Your task to perform on an android device: open a bookmark in the chrome app Image 0: 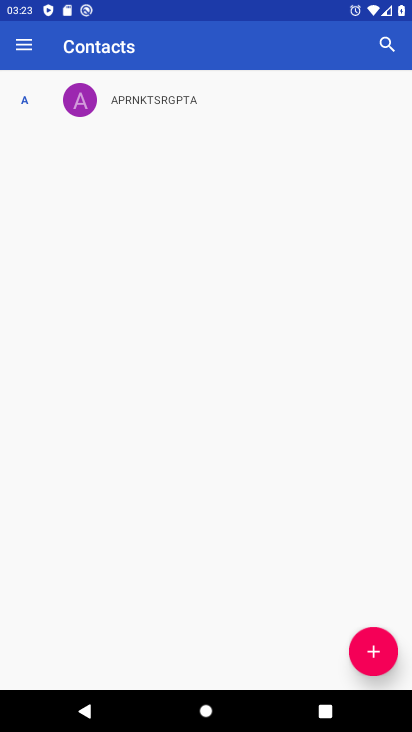
Step 0: drag from (155, 631) to (118, 234)
Your task to perform on an android device: open a bookmark in the chrome app Image 1: 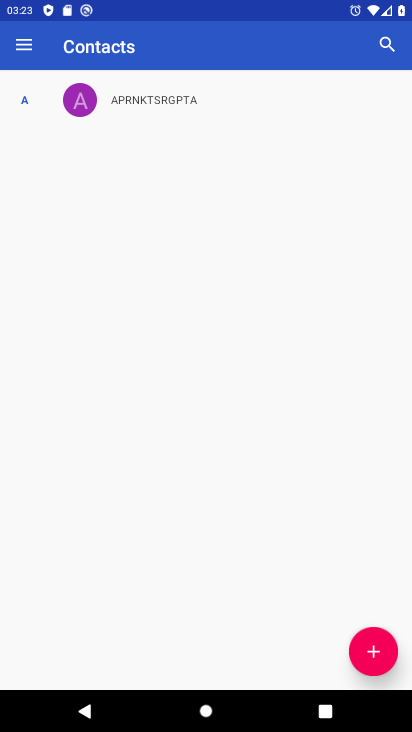
Step 1: press home button
Your task to perform on an android device: open a bookmark in the chrome app Image 2: 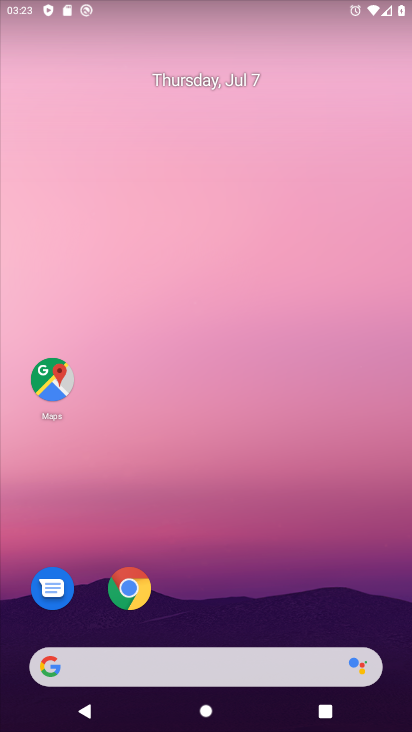
Step 2: click (129, 584)
Your task to perform on an android device: open a bookmark in the chrome app Image 3: 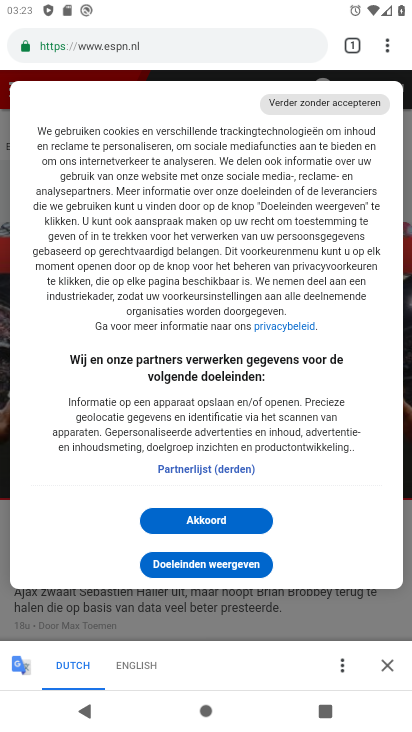
Step 3: click (393, 42)
Your task to perform on an android device: open a bookmark in the chrome app Image 4: 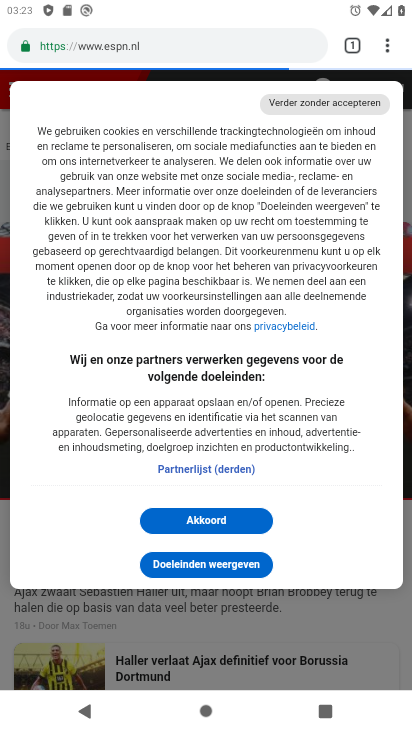
Step 4: click (375, 37)
Your task to perform on an android device: open a bookmark in the chrome app Image 5: 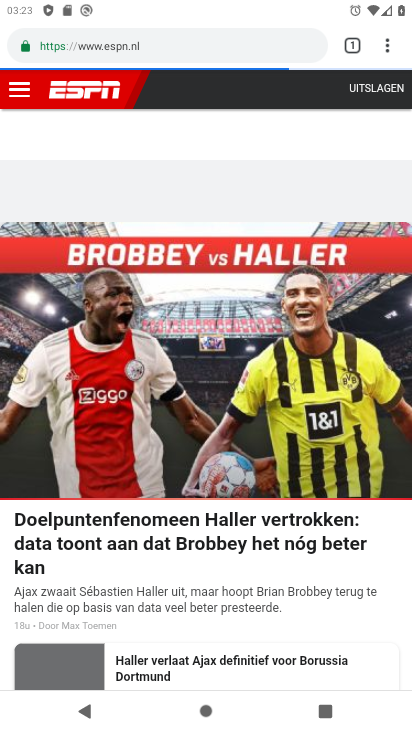
Step 5: click (386, 46)
Your task to perform on an android device: open a bookmark in the chrome app Image 6: 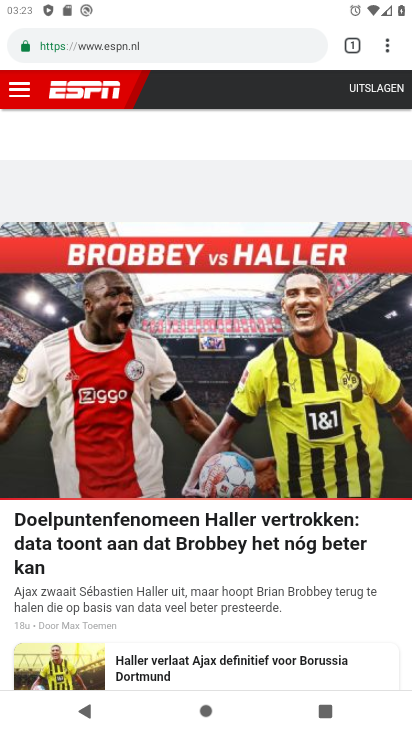
Step 6: click (386, 46)
Your task to perform on an android device: open a bookmark in the chrome app Image 7: 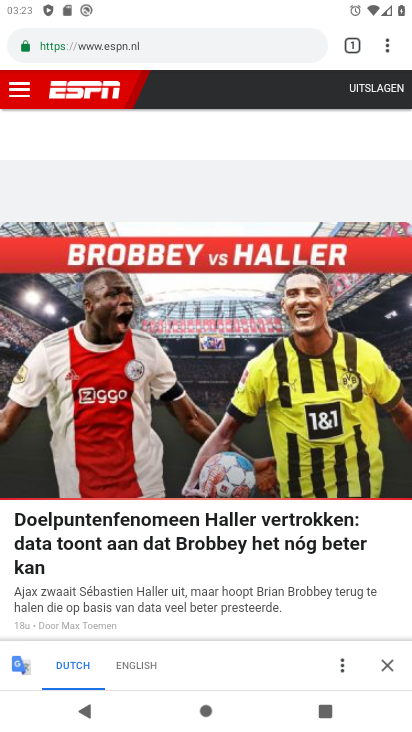
Step 7: click (385, 45)
Your task to perform on an android device: open a bookmark in the chrome app Image 8: 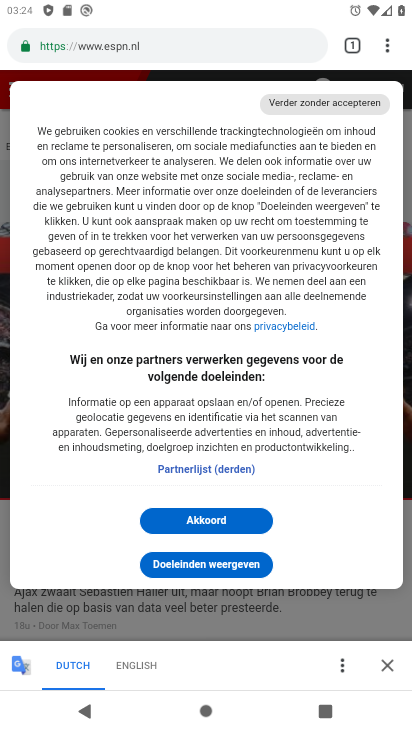
Step 8: click (387, 47)
Your task to perform on an android device: open a bookmark in the chrome app Image 9: 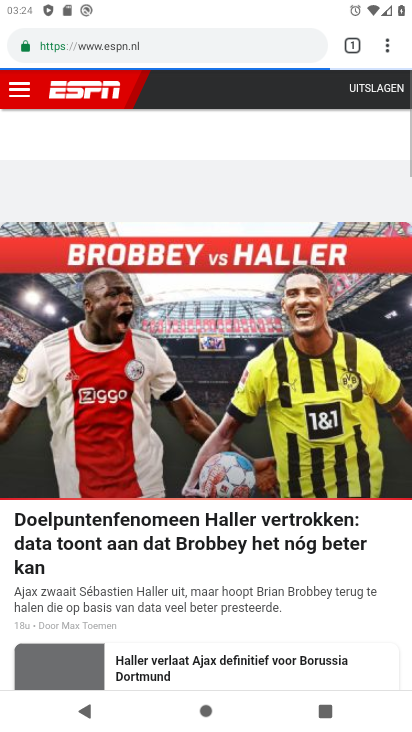
Step 9: click (384, 45)
Your task to perform on an android device: open a bookmark in the chrome app Image 10: 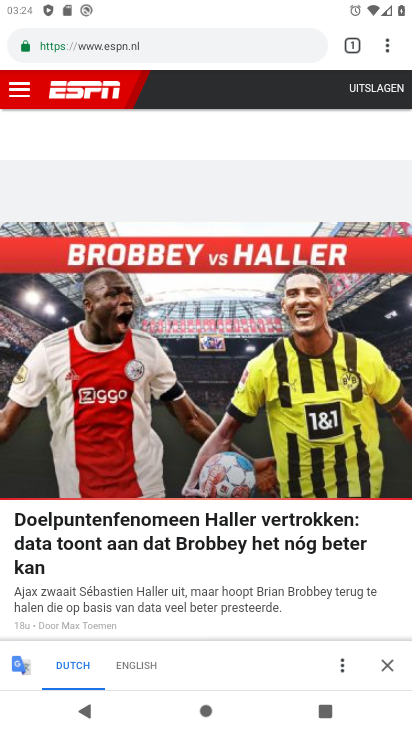
Step 10: click (384, 45)
Your task to perform on an android device: open a bookmark in the chrome app Image 11: 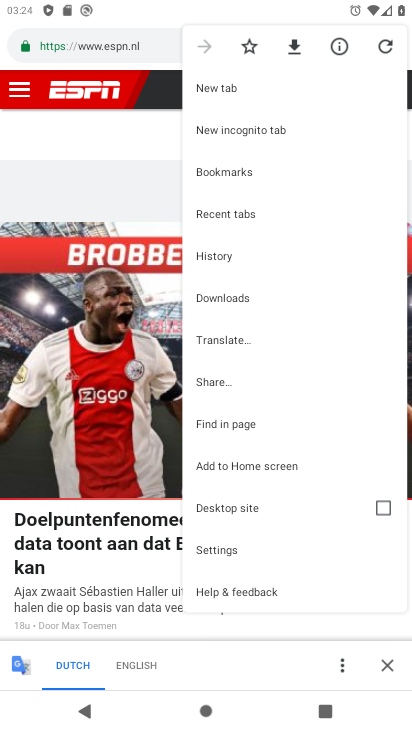
Step 11: click (209, 166)
Your task to perform on an android device: open a bookmark in the chrome app Image 12: 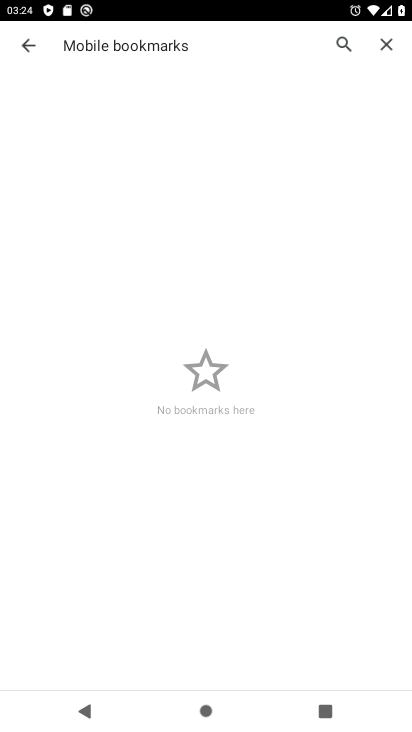
Step 12: task complete